Your task to perform on an android device: open app "Move to iOS" (install if not already installed) and enter user name: "Decca@icloud.com" and password: "reabbreviate" Image 0: 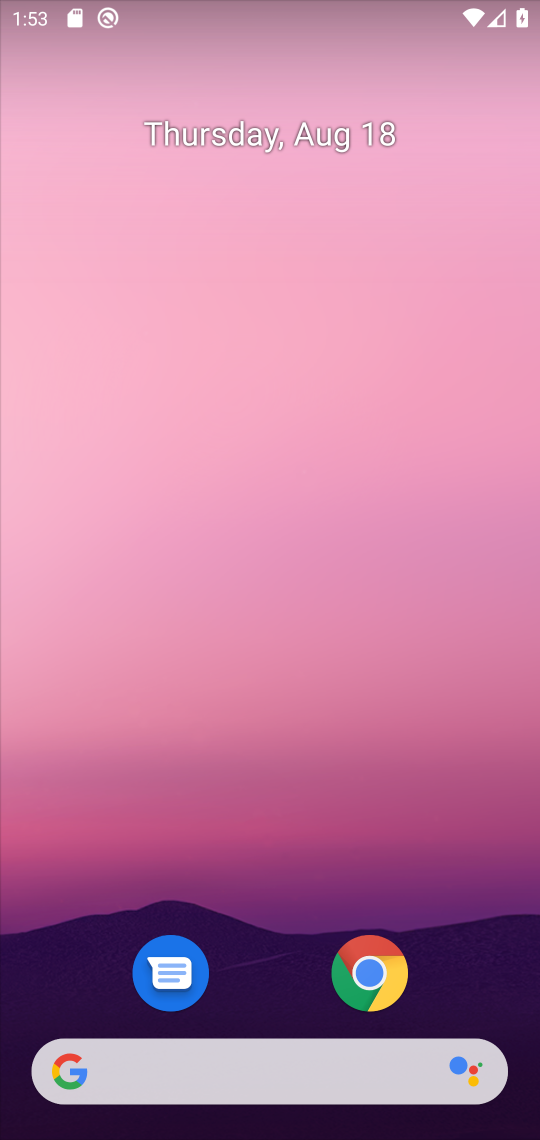
Step 0: drag from (303, 1029) to (252, 0)
Your task to perform on an android device: open app "Move to iOS" (install if not already installed) and enter user name: "Decca@icloud.com" and password: "reabbreviate" Image 1: 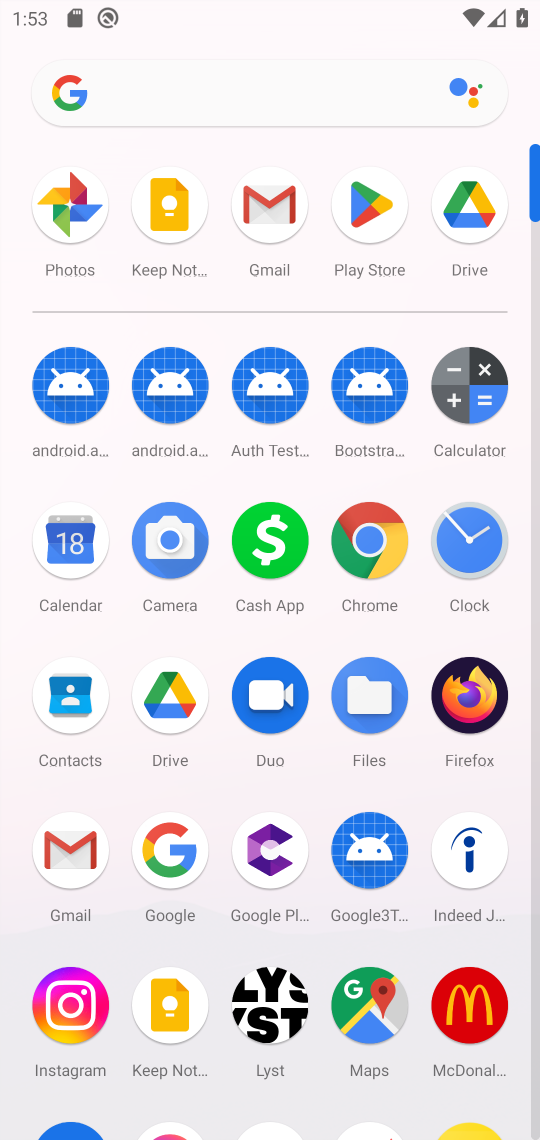
Step 1: drag from (228, 928) to (220, 665)
Your task to perform on an android device: open app "Move to iOS" (install if not already installed) and enter user name: "Decca@icloud.com" and password: "reabbreviate" Image 2: 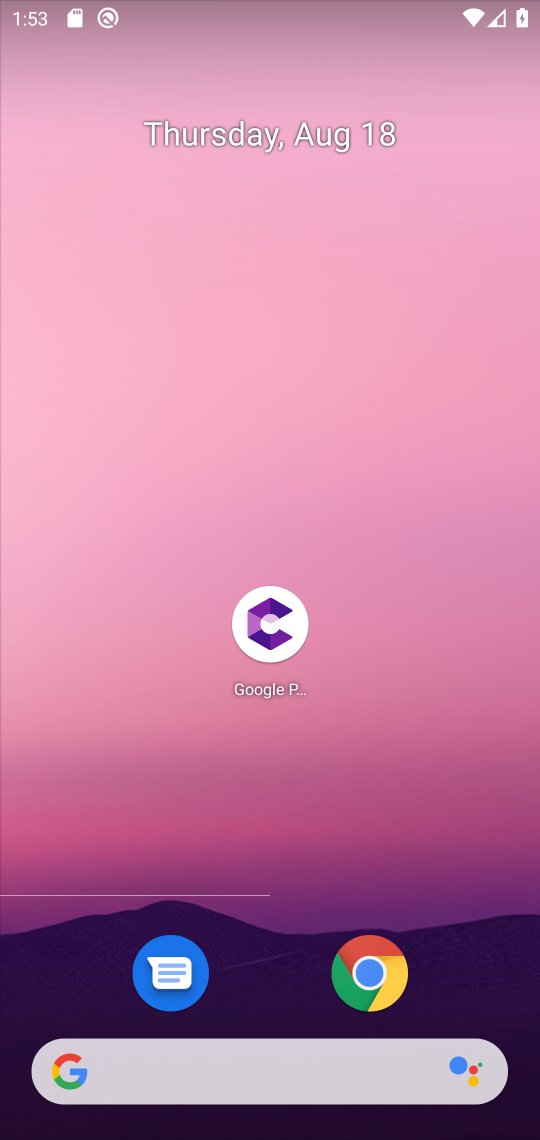
Step 2: click (256, 779)
Your task to perform on an android device: open app "Move to iOS" (install if not already installed) and enter user name: "Decca@icloud.com" and password: "reabbreviate" Image 3: 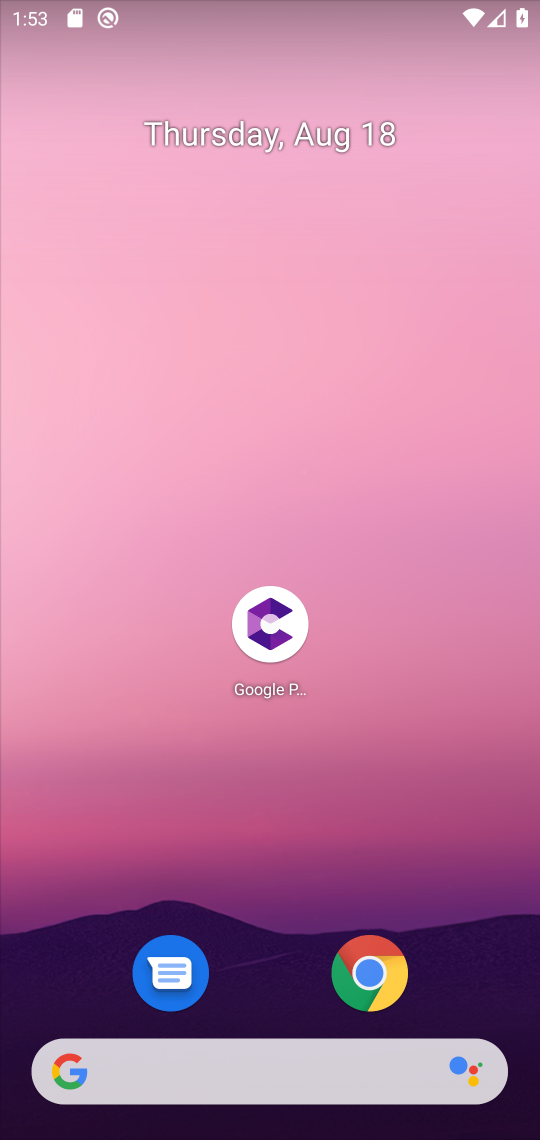
Step 3: drag from (292, 899) to (226, 70)
Your task to perform on an android device: open app "Move to iOS" (install if not already installed) and enter user name: "Decca@icloud.com" and password: "reabbreviate" Image 4: 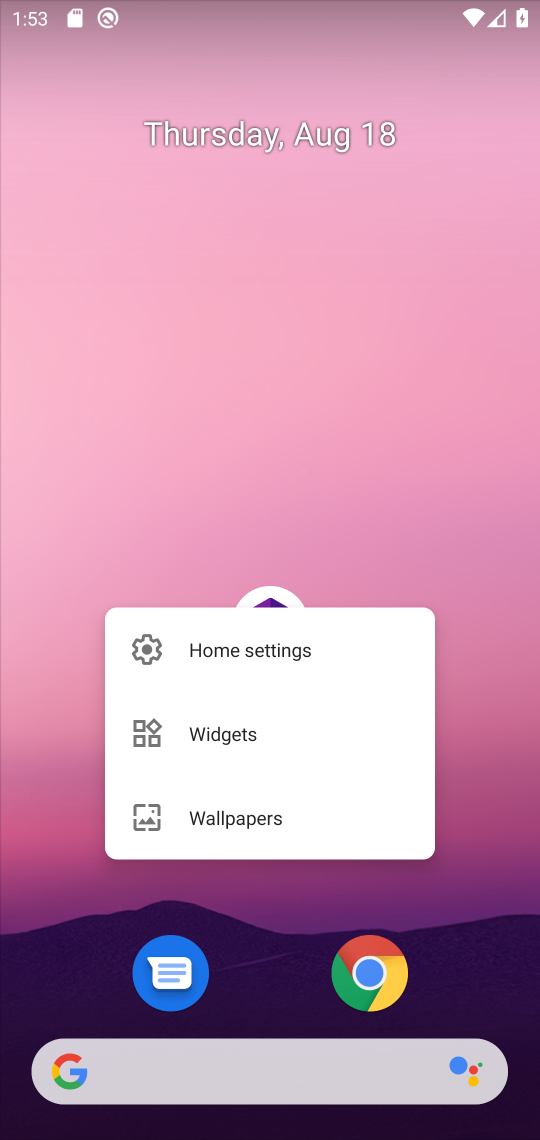
Step 4: click (297, 355)
Your task to perform on an android device: open app "Move to iOS" (install if not already installed) and enter user name: "Decca@icloud.com" and password: "reabbreviate" Image 5: 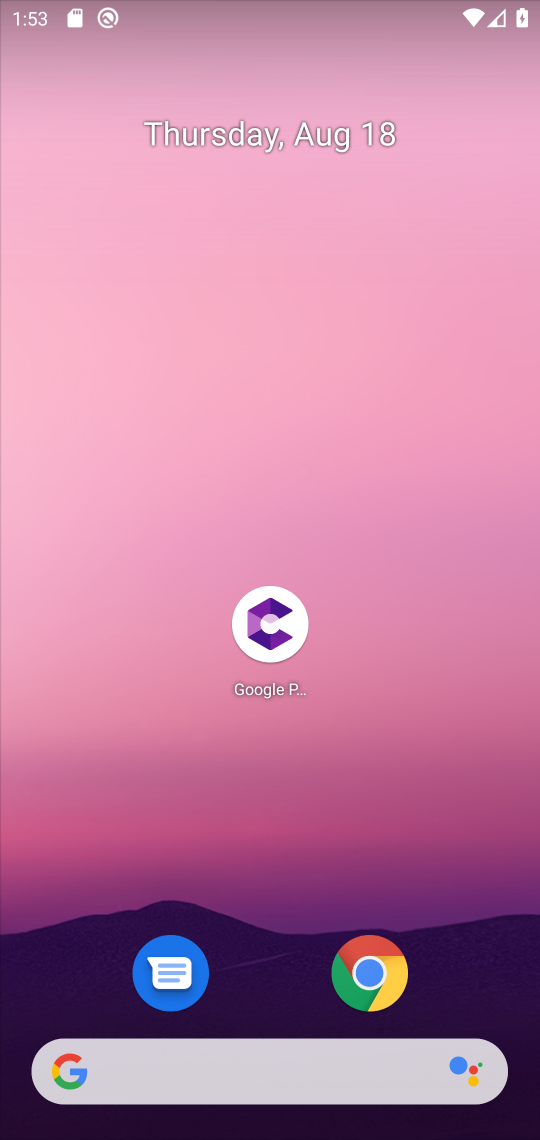
Step 5: drag from (311, 644) to (393, 116)
Your task to perform on an android device: open app "Move to iOS" (install if not already installed) and enter user name: "Decca@icloud.com" and password: "reabbreviate" Image 6: 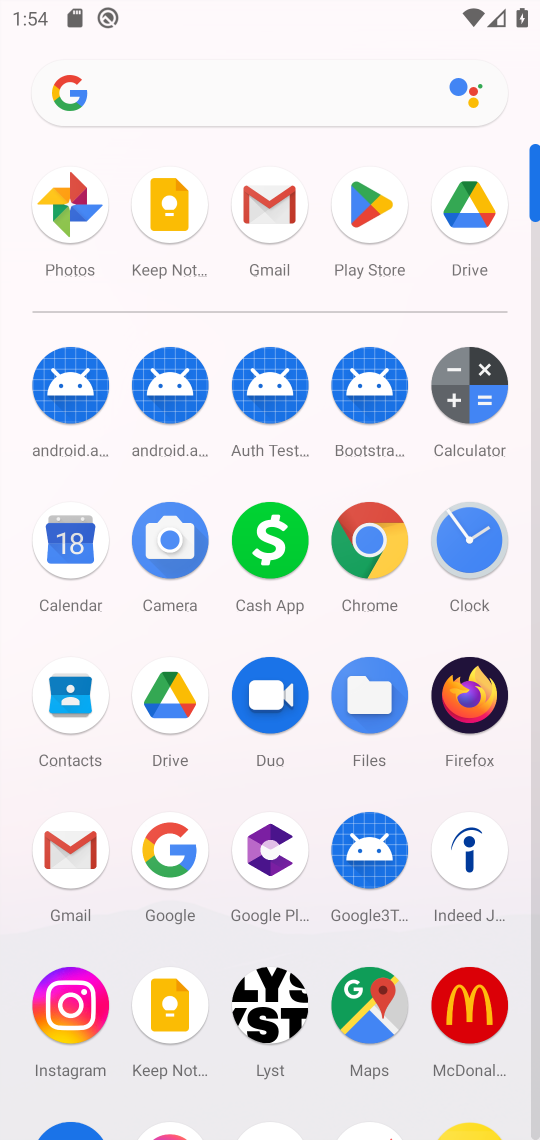
Step 6: click (531, 1123)
Your task to perform on an android device: open app "Move to iOS" (install if not already installed) and enter user name: "Decca@icloud.com" and password: "reabbreviate" Image 7: 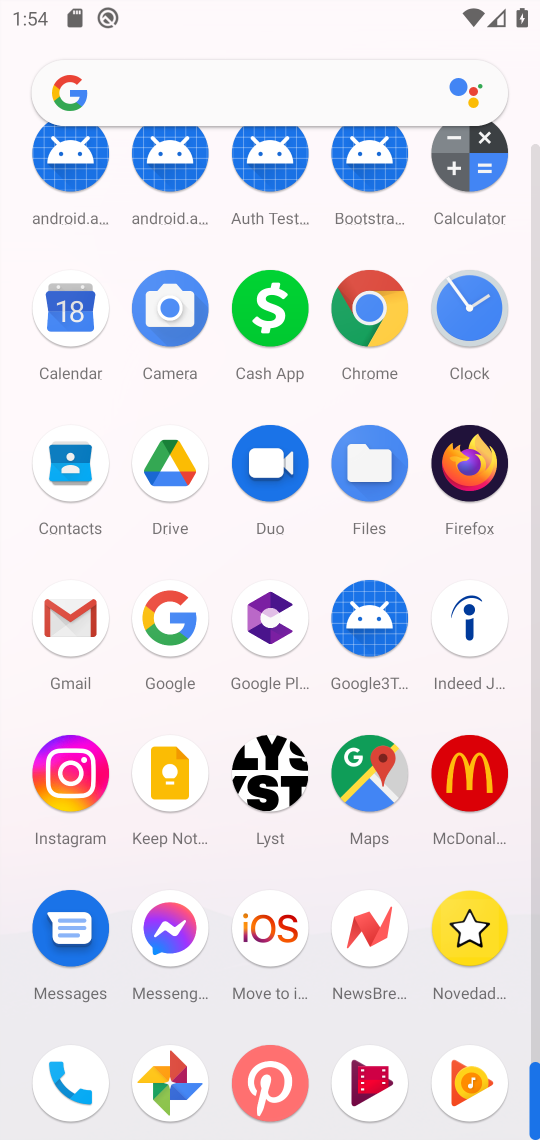
Step 7: click (255, 955)
Your task to perform on an android device: open app "Move to iOS" (install if not already installed) and enter user name: "Decca@icloud.com" and password: "reabbreviate" Image 8: 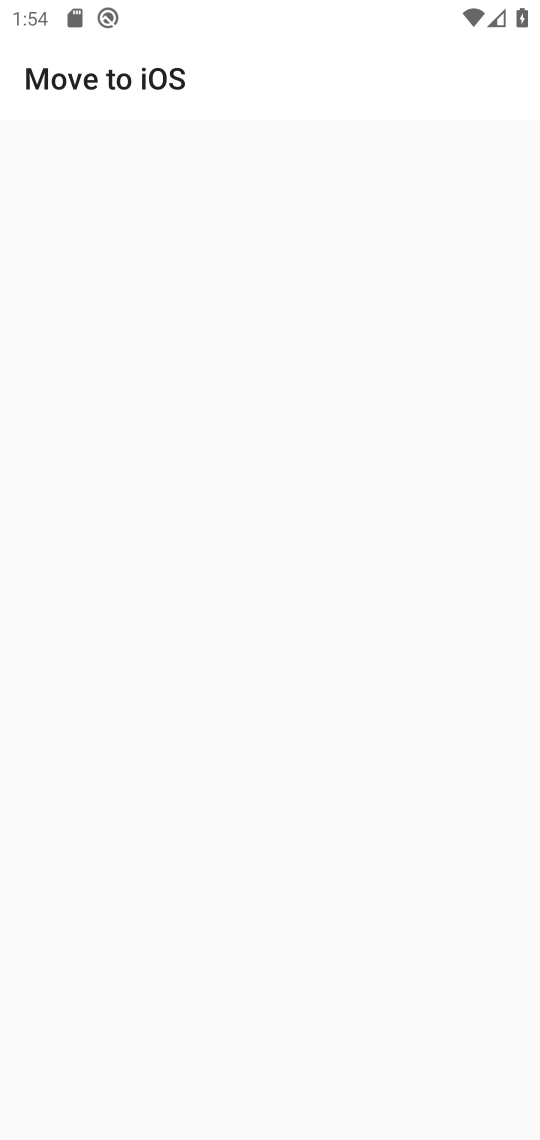
Step 8: task complete